Your task to perform on an android device: turn on bluetooth scan Image 0: 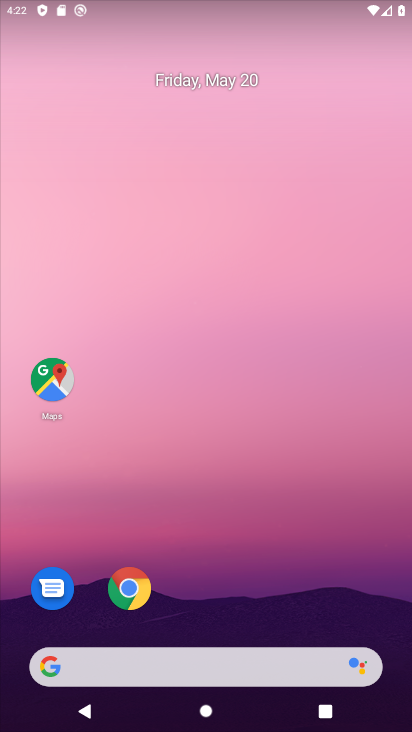
Step 0: drag from (216, 1) to (215, 94)
Your task to perform on an android device: turn on bluetooth scan Image 1: 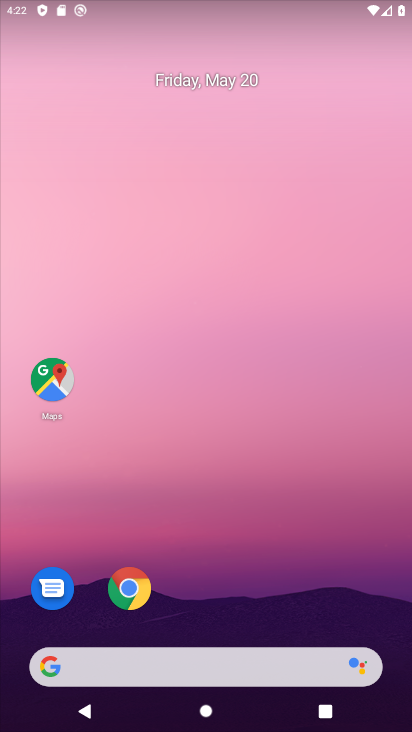
Step 1: drag from (206, 605) to (237, 118)
Your task to perform on an android device: turn on bluetooth scan Image 2: 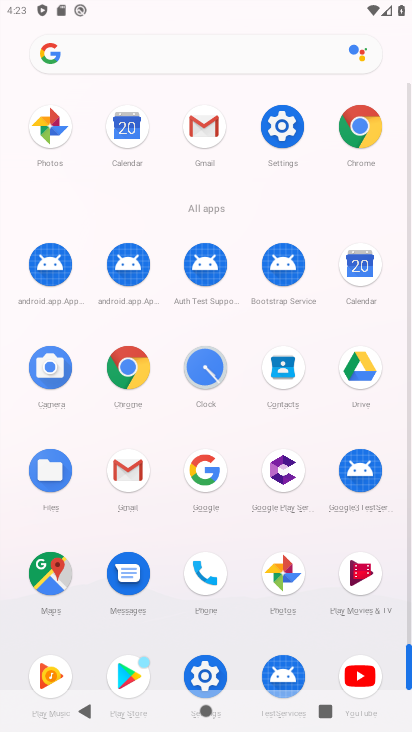
Step 2: click (280, 132)
Your task to perform on an android device: turn on bluetooth scan Image 3: 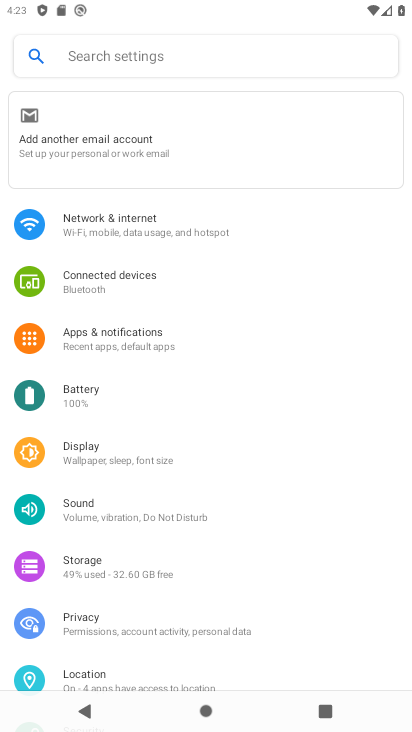
Step 3: click (81, 668)
Your task to perform on an android device: turn on bluetooth scan Image 4: 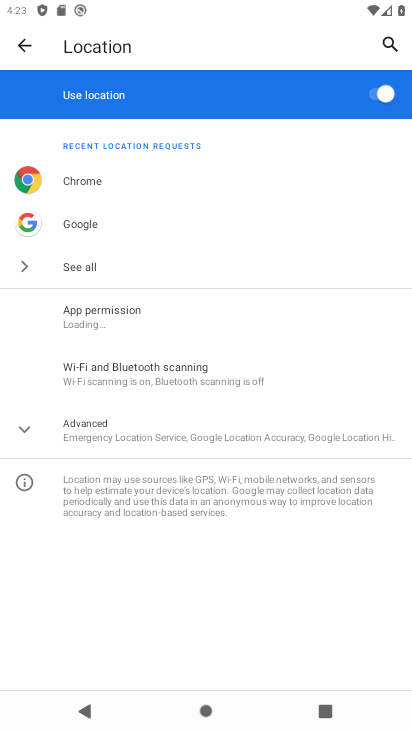
Step 4: click (144, 373)
Your task to perform on an android device: turn on bluetooth scan Image 5: 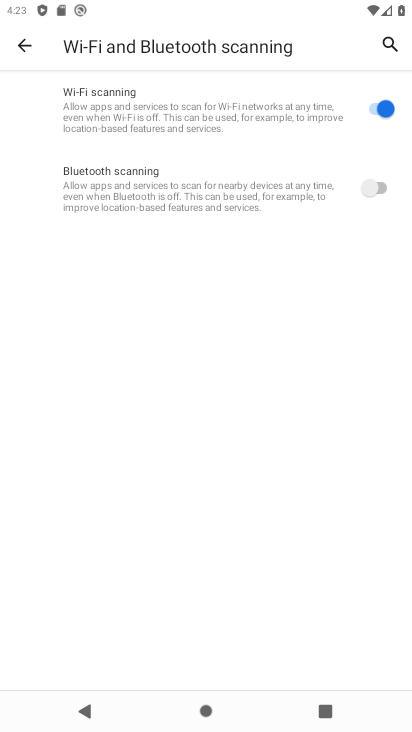
Step 5: click (372, 180)
Your task to perform on an android device: turn on bluetooth scan Image 6: 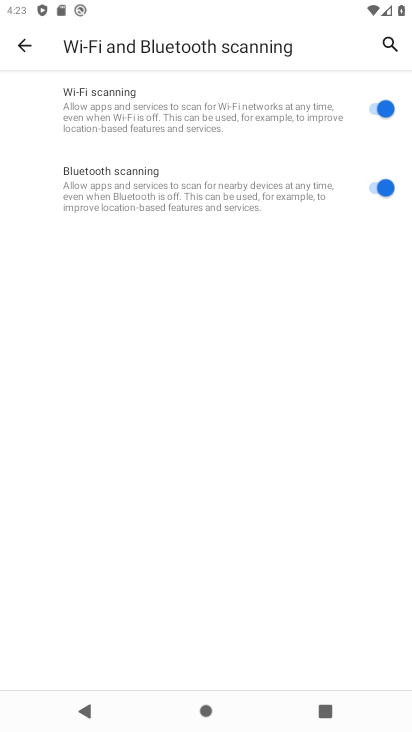
Step 6: task complete